Your task to perform on an android device: show emergency info Image 0: 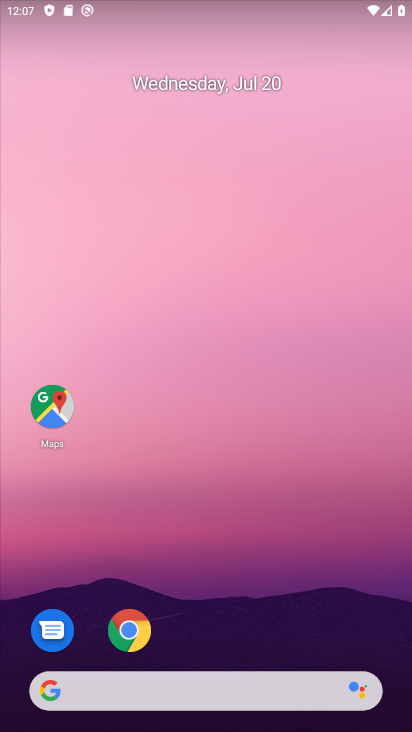
Step 0: drag from (227, 638) to (98, 0)
Your task to perform on an android device: show emergency info Image 1: 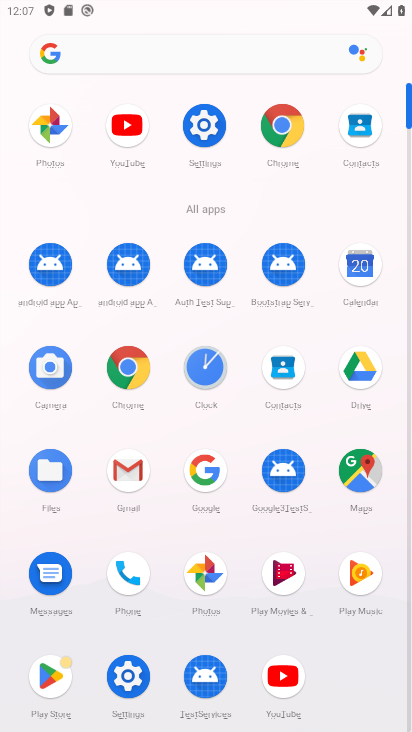
Step 1: click (117, 687)
Your task to perform on an android device: show emergency info Image 2: 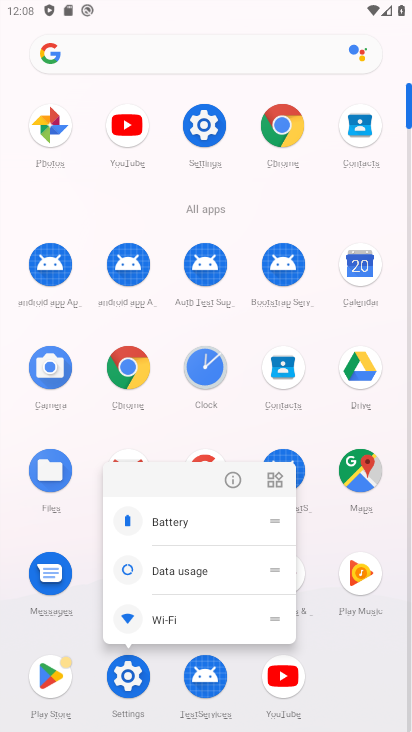
Step 2: click (128, 684)
Your task to perform on an android device: show emergency info Image 3: 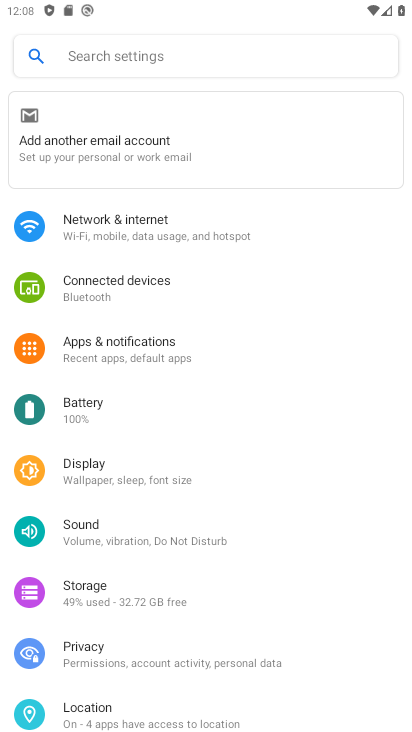
Step 3: drag from (169, 647) to (190, 196)
Your task to perform on an android device: show emergency info Image 4: 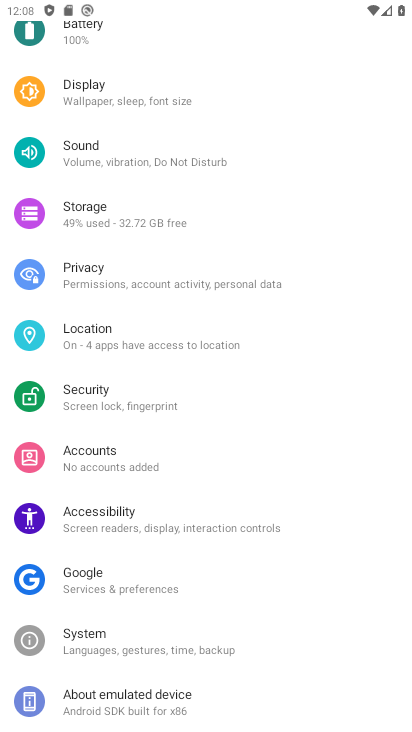
Step 4: click (149, 699)
Your task to perform on an android device: show emergency info Image 5: 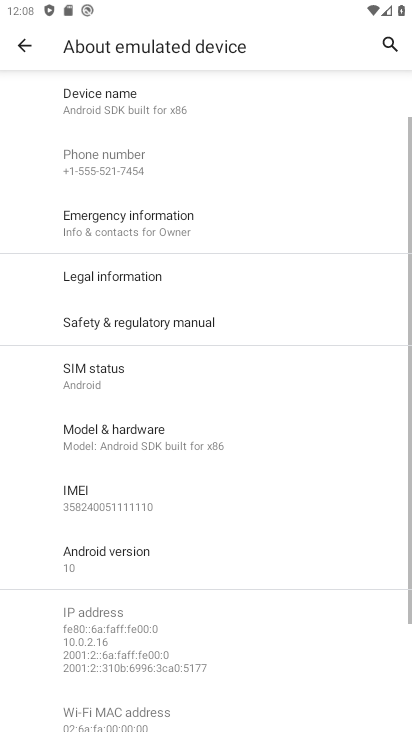
Step 5: click (141, 227)
Your task to perform on an android device: show emergency info Image 6: 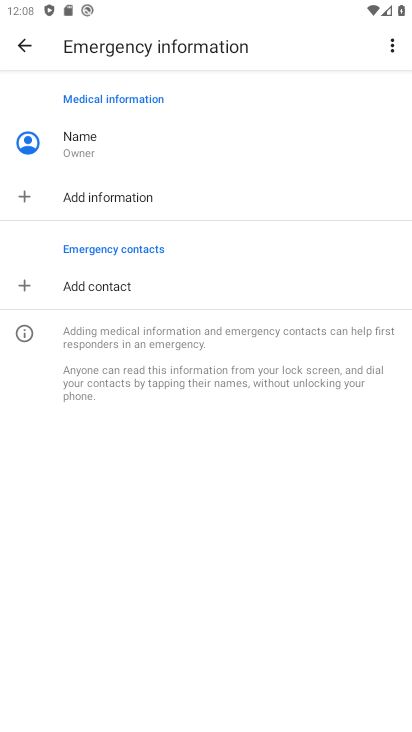
Step 6: task complete